Your task to perform on an android device: visit the assistant section in the google photos Image 0: 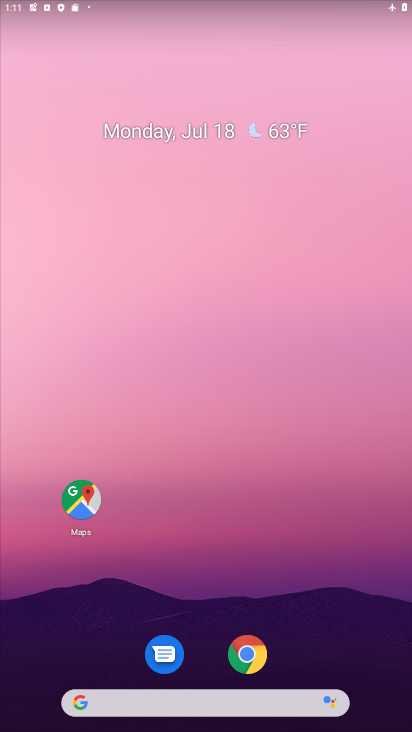
Step 0: drag from (196, 614) to (212, 193)
Your task to perform on an android device: visit the assistant section in the google photos Image 1: 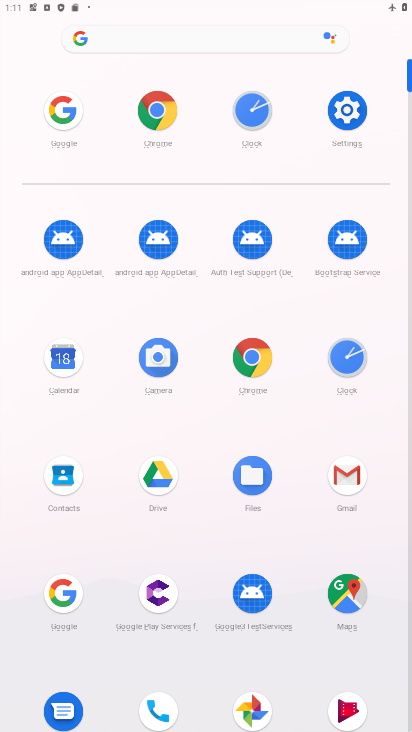
Step 1: drag from (219, 533) to (181, 298)
Your task to perform on an android device: visit the assistant section in the google photos Image 2: 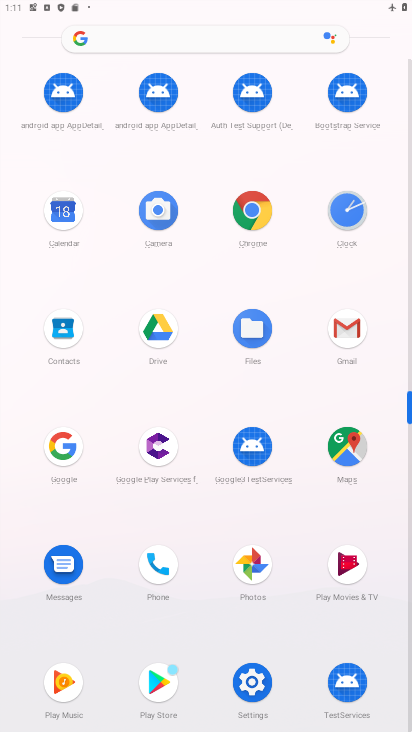
Step 2: click (246, 561)
Your task to perform on an android device: visit the assistant section in the google photos Image 3: 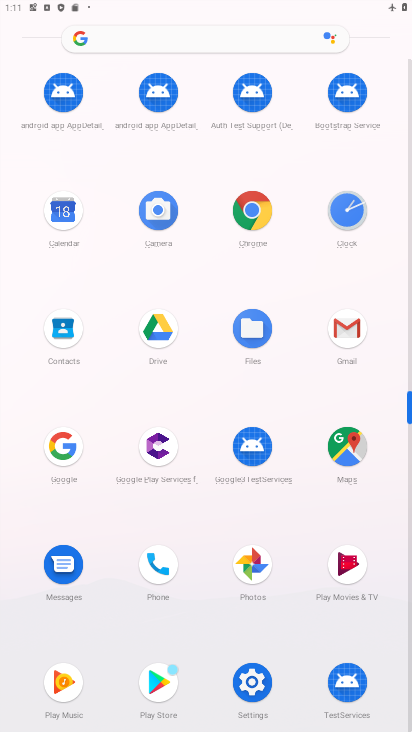
Step 3: click (264, 554)
Your task to perform on an android device: visit the assistant section in the google photos Image 4: 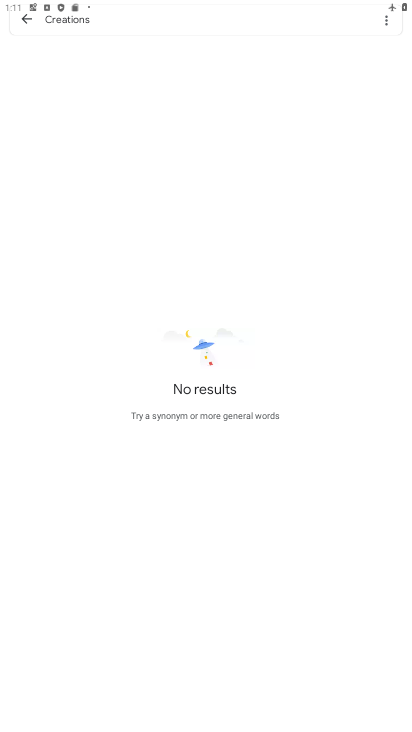
Step 4: press back button
Your task to perform on an android device: visit the assistant section in the google photos Image 5: 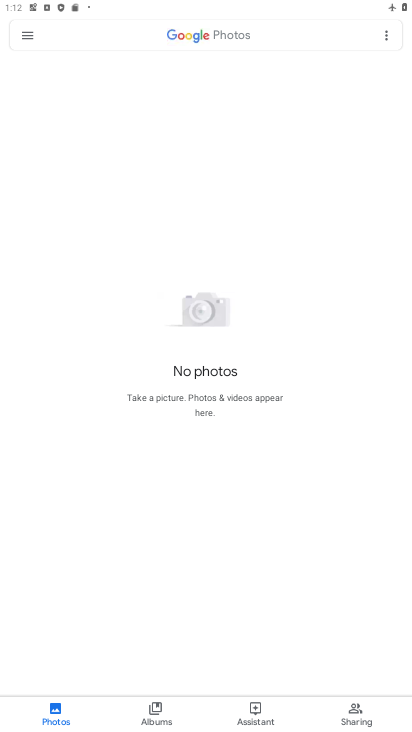
Step 5: click (253, 709)
Your task to perform on an android device: visit the assistant section in the google photos Image 6: 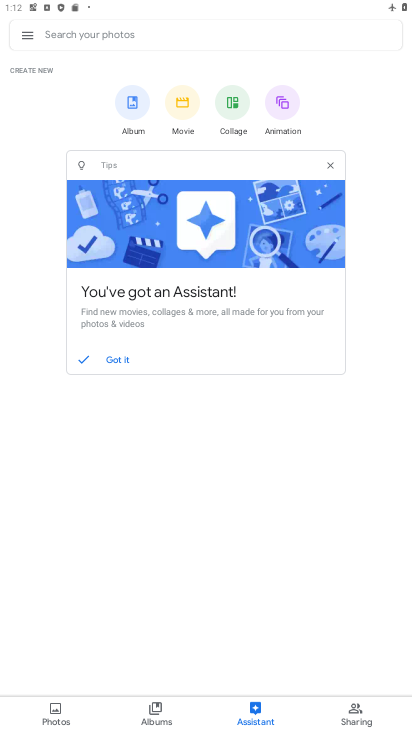
Step 6: task complete